Your task to perform on an android device: add a contact in the contacts app Image 0: 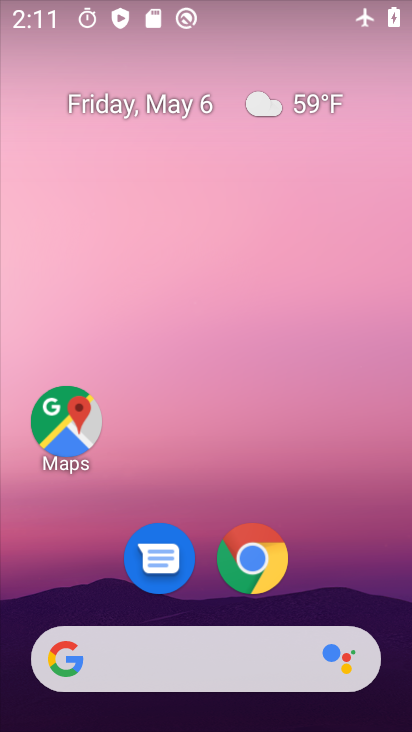
Step 0: drag from (200, 721) to (164, 238)
Your task to perform on an android device: add a contact in the contacts app Image 1: 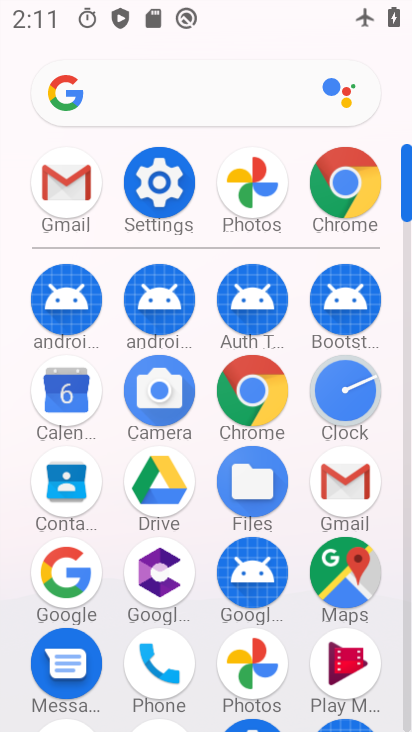
Step 1: click (69, 473)
Your task to perform on an android device: add a contact in the contacts app Image 2: 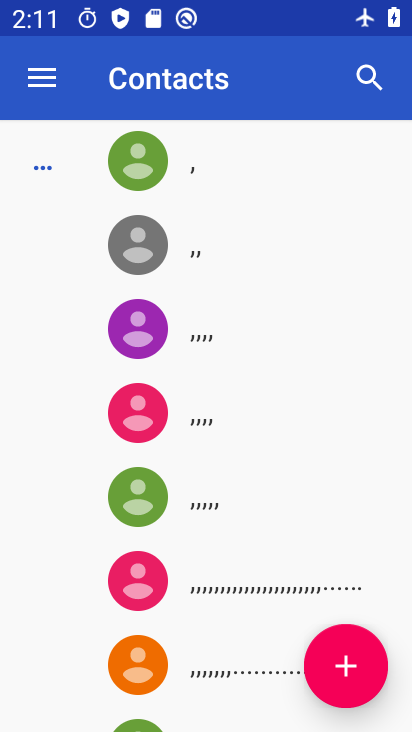
Step 2: click (350, 657)
Your task to perform on an android device: add a contact in the contacts app Image 3: 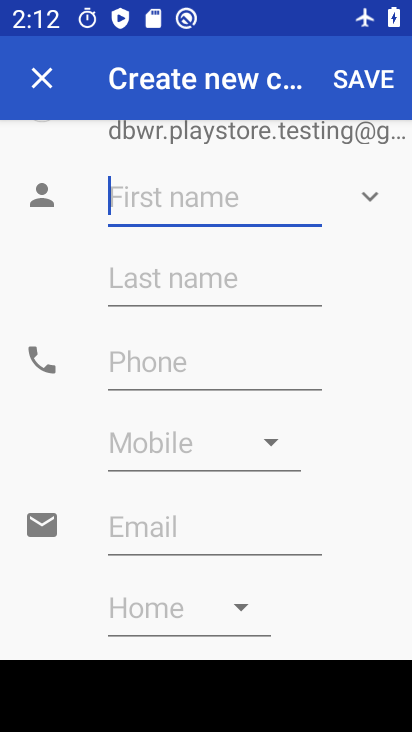
Step 3: type "nikhil"
Your task to perform on an android device: add a contact in the contacts app Image 4: 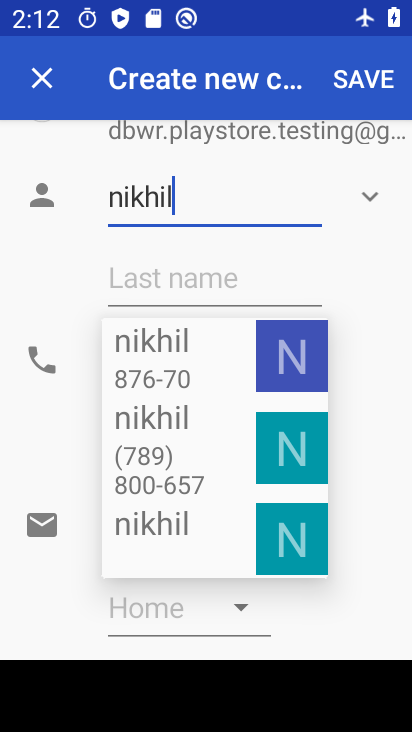
Step 4: type "lllll"
Your task to perform on an android device: add a contact in the contacts app Image 5: 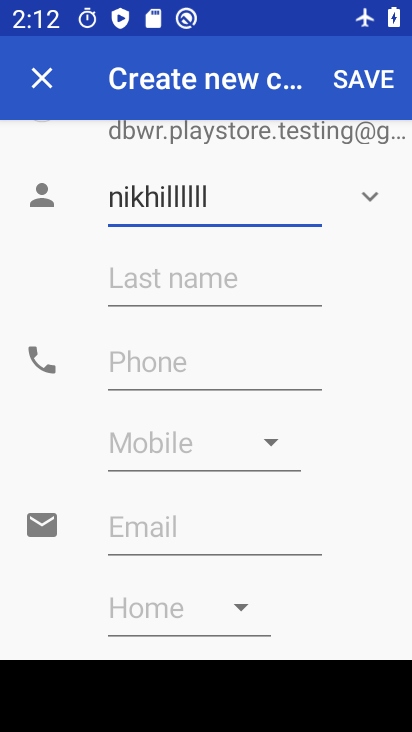
Step 5: click (152, 364)
Your task to perform on an android device: add a contact in the contacts app Image 6: 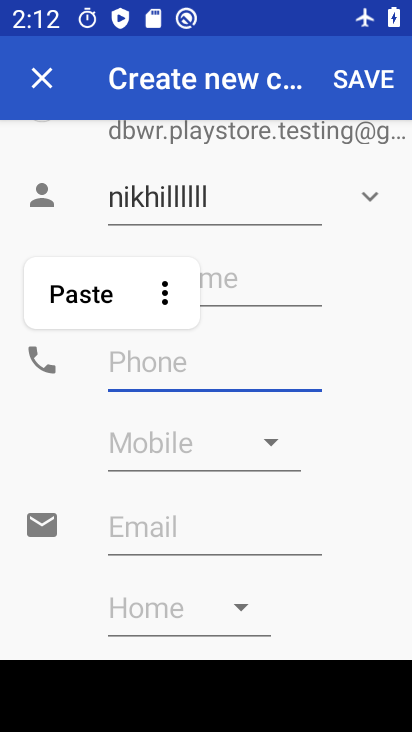
Step 6: click (173, 368)
Your task to perform on an android device: add a contact in the contacts app Image 7: 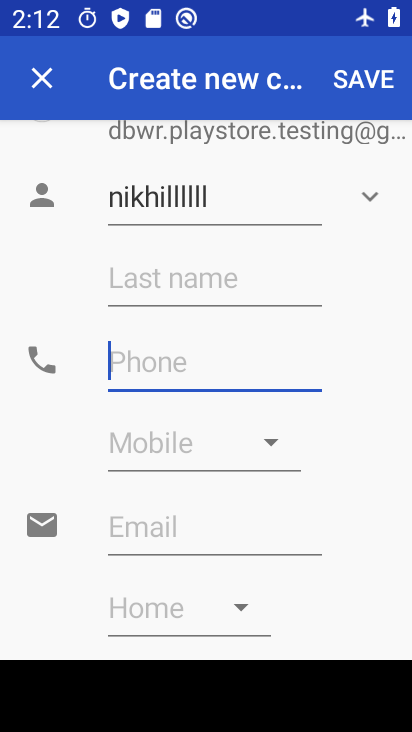
Step 7: type "76789"
Your task to perform on an android device: add a contact in the contacts app Image 8: 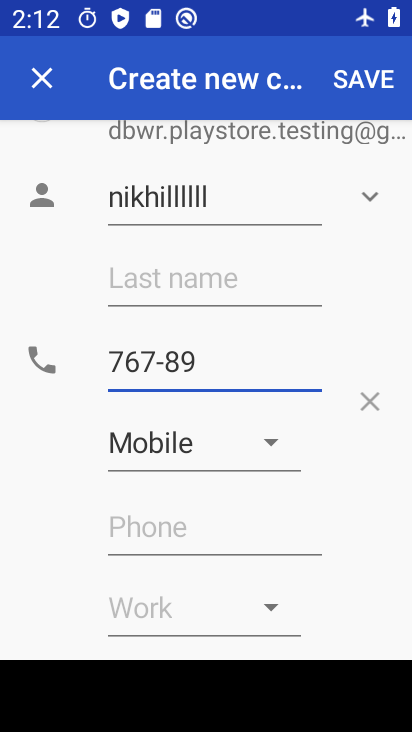
Step 8: click (374, 80)
Your task to perform on an android device: add a contact in the contacts app Image 9: 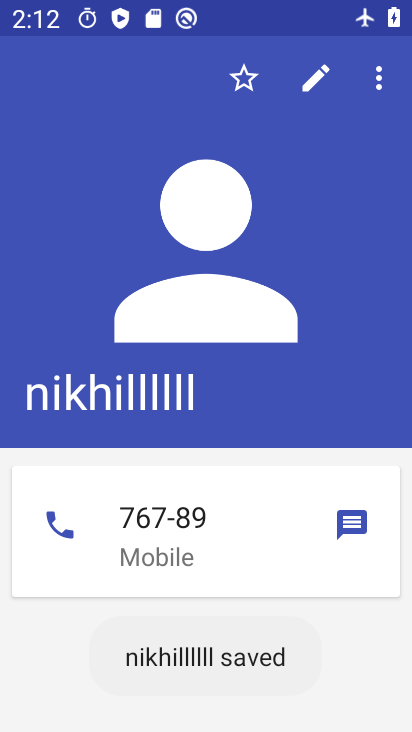
Step 9: task complete